Your task to perform on an android device: star an email in the gmail app Image 0: 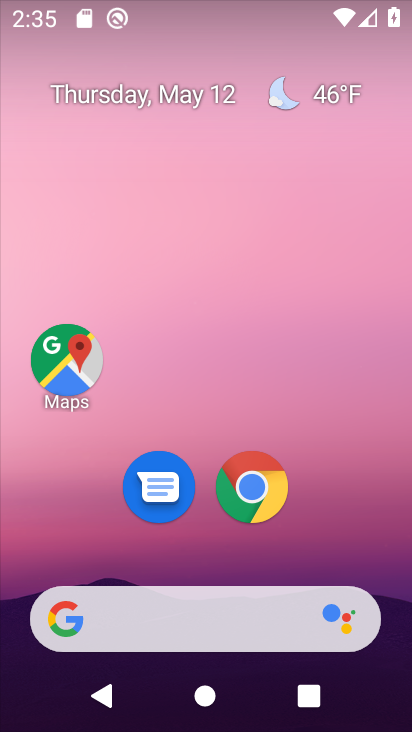
Step 0: drag from (208, 554) to (194, 13)
Your task to perform on an android device: star an email in the gmail app Image 1: 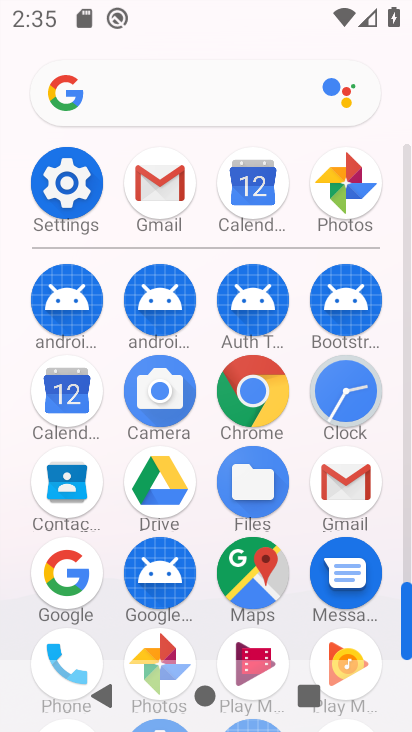
Step 1: click (345, 498)
Your task to perform on an android device: star an email in the gmail app Image 2: 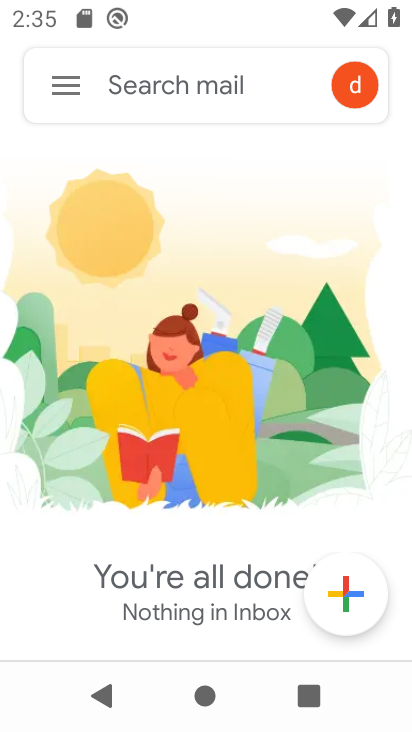
Step 2: click (70, 78)
Your task to perform on an android device: star an email in the gmail app Image 3: 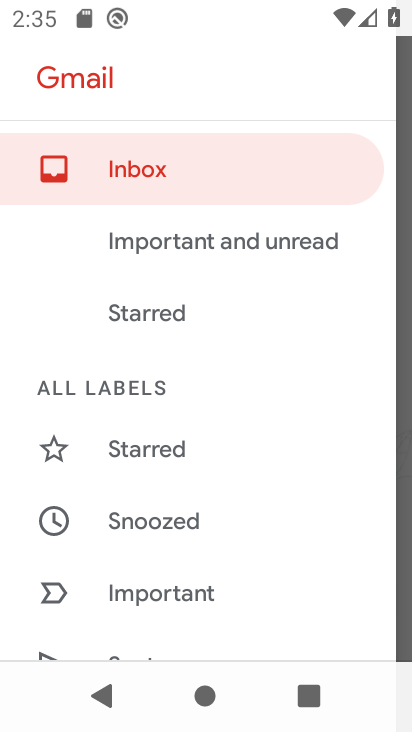
Step 3: drag from (190, 507) to (205, 132)
Your task to perform on an android device: star an email in the gmail app Image 4: 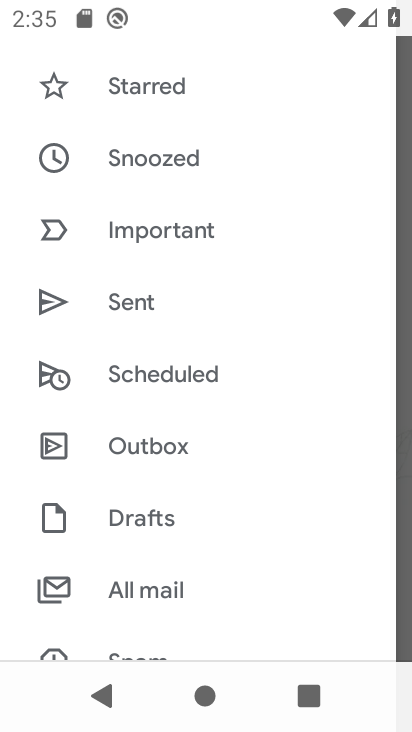
Step 4: click (149, 579)
Your task to perform on an android device: star an email in the gmail app Image 5: 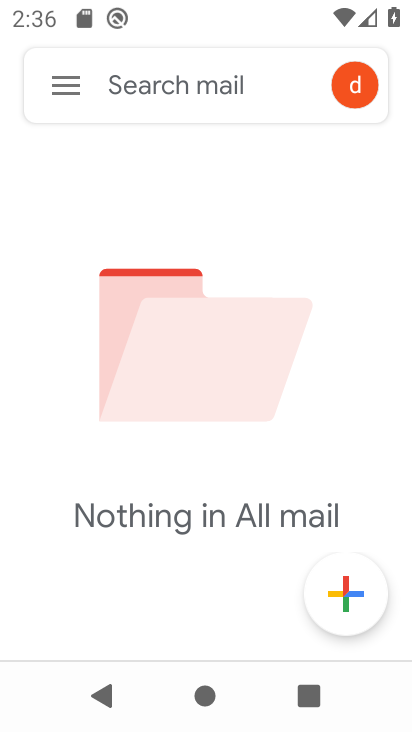
Step 5: task complete